Your task to perform on an android device: Open network settings Image 0: 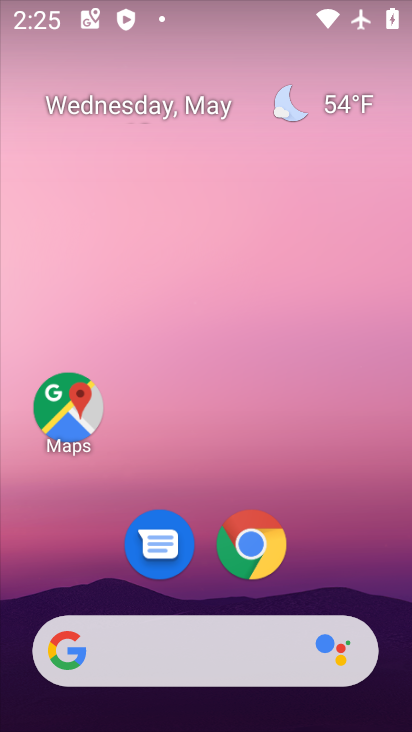
Step 0: drag from (326, 560) to (342, 27)
Your task to perform on an android device: Open network settings Image 1: 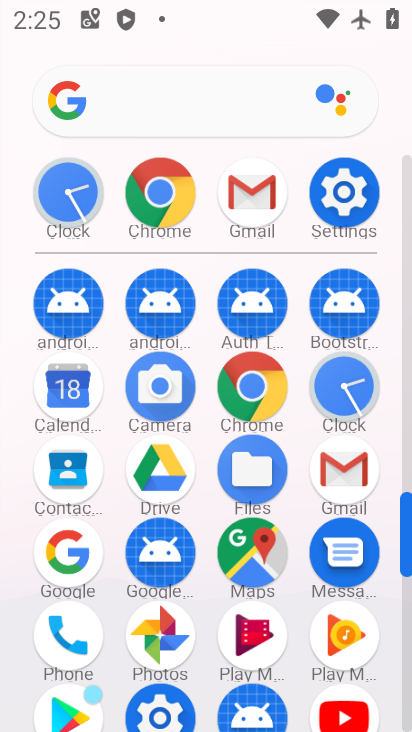
Step 1: click (337, 189)
Your task to perform on an android device: Open network settings Image 2: 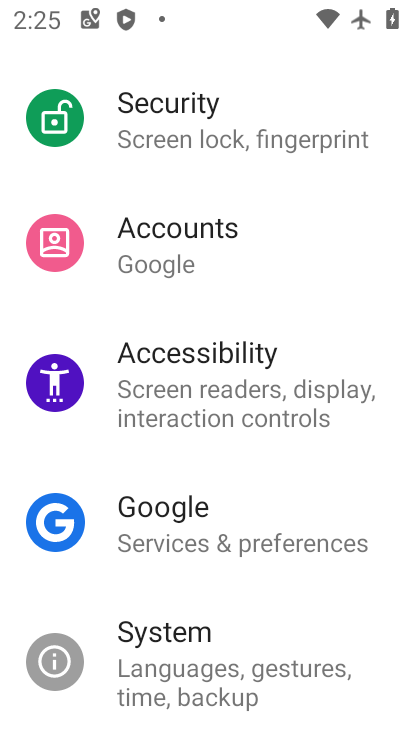
Step 2: drag from (226, 172) to (197, 704)
Your task to perform on an android device: Open network settings Image 3: 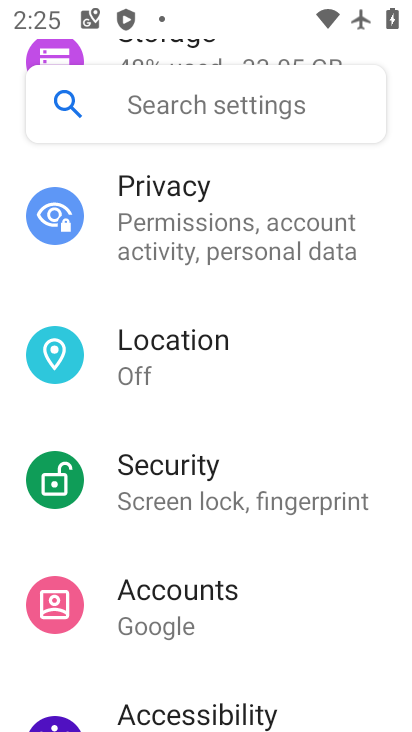
Step 3: drag from (211, 229) to (239, 483)
Your task to perform on an android device: Open network settings Image 4: 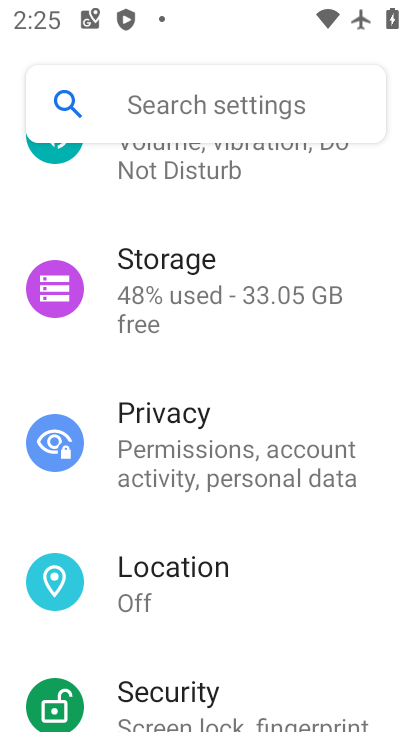
Step 4: drag from (249, 272) to (284, 654)
Your task to perform on an android device: Open network settings Image 5: 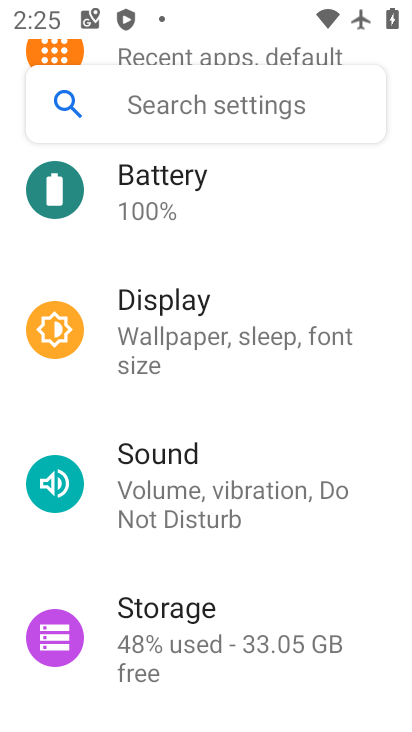
Step 5: drag from (244, 186) to (301, 611)
Your task to perform on an android device: Open network settings Image 6: 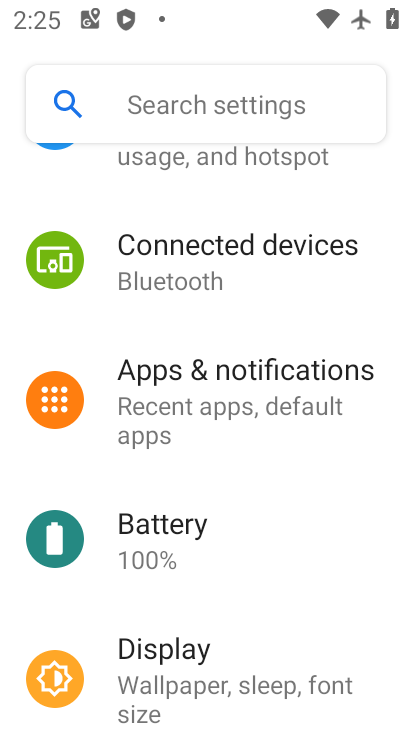
Step 6: drag from (238, 262) to (273, 555)
Your task to perform on an android device: Open network settings Image 7: 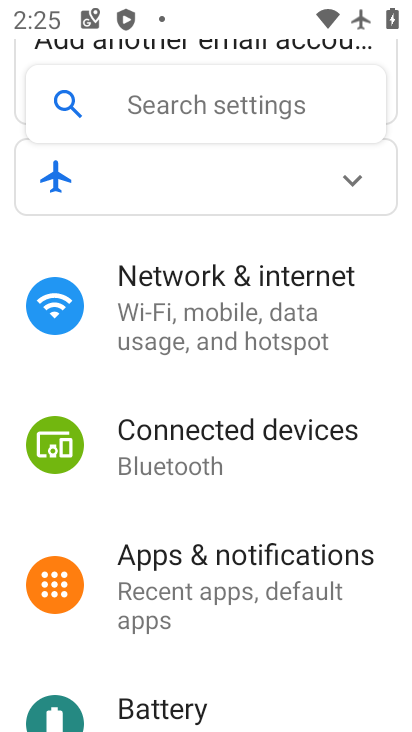
Step 7: click (257, 313)
Your task to perform on an android device: Open network settings Image 8: 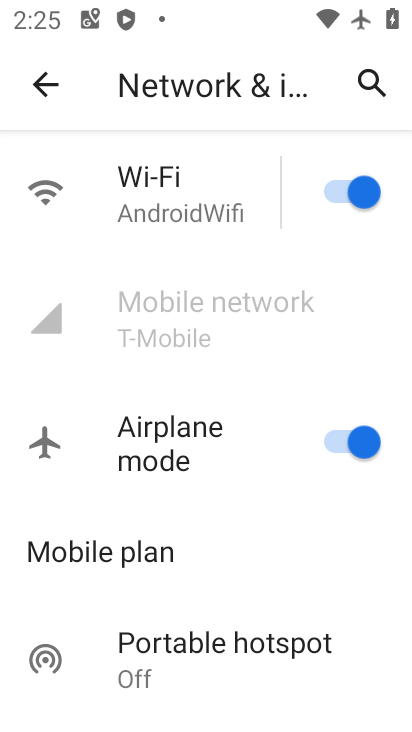
Step 8: task complete